Your task to perform on an android device: turn off picture-in-picture Image 0: 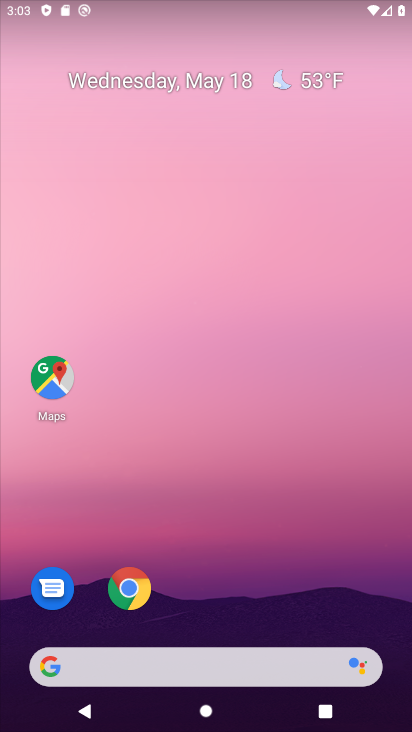
Step 0: press home button
Your task to perform on an android device: turn off picture-in-picture Image 1: 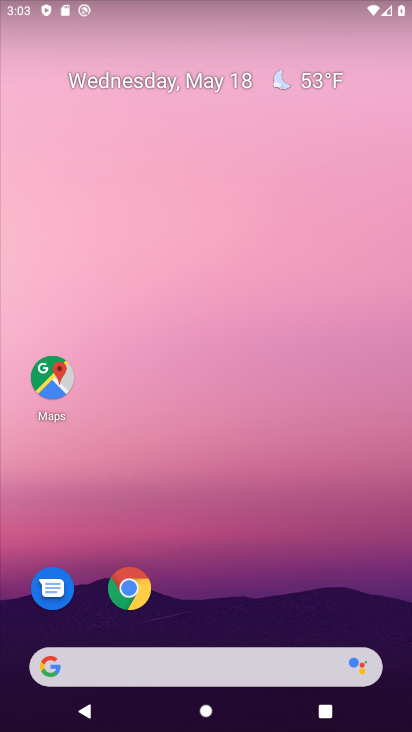
Step 1: click (141, 576)
Your task to perform on an android device: turn off picture-in-picture Image 2: 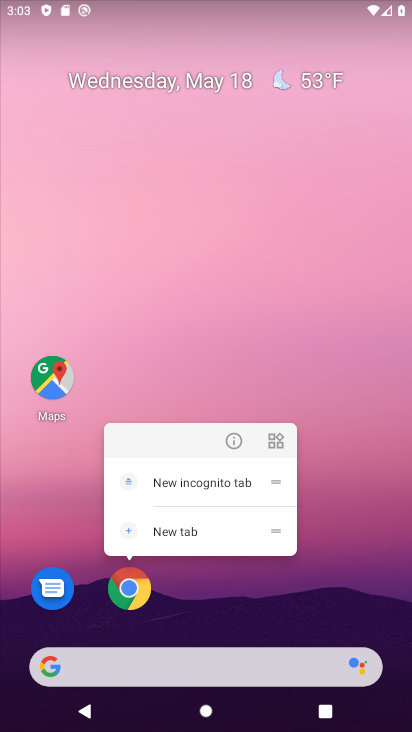
Step 2: click (230, 427)
Your task to perform on an android device: turn off picture-in-picture Image 3: 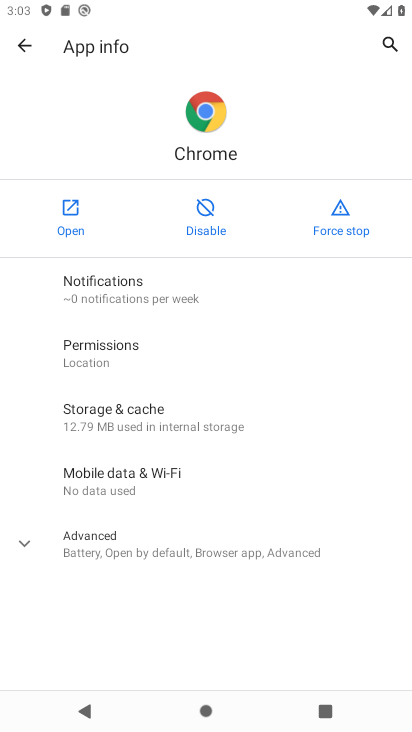
Step 3: click (112, 554)
Your task to perform on an android device: turn off picture-in-picture Image 4: 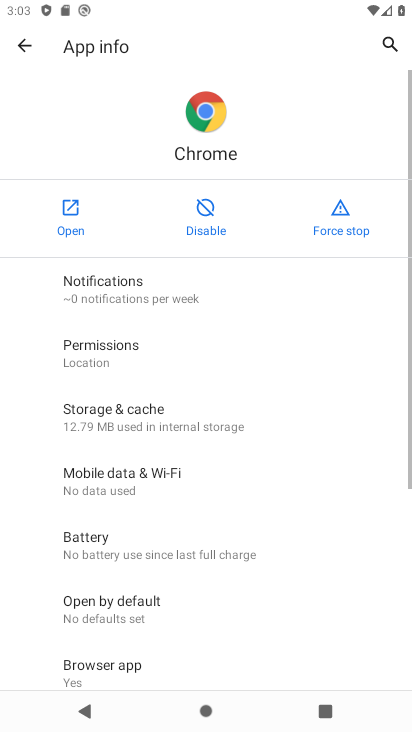
Step 4: drag from (147, 606) to (115, 110)
Your task to perform on an android device: turn off picture-in-picture Image 5: 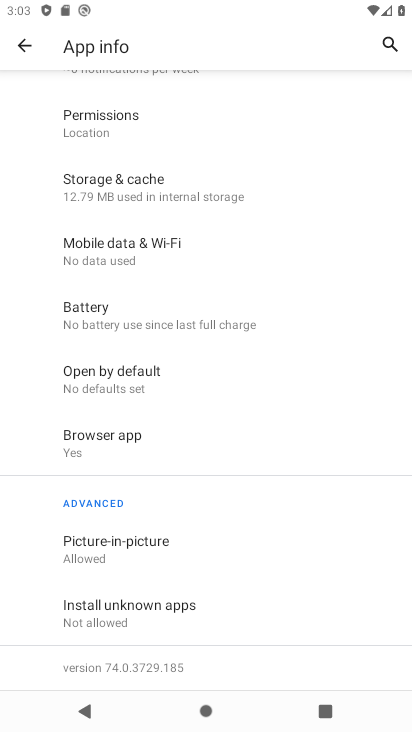
Step 5: click (121, 566)
Your task to perform on an android device: turn off picture-in-picture Image 6: 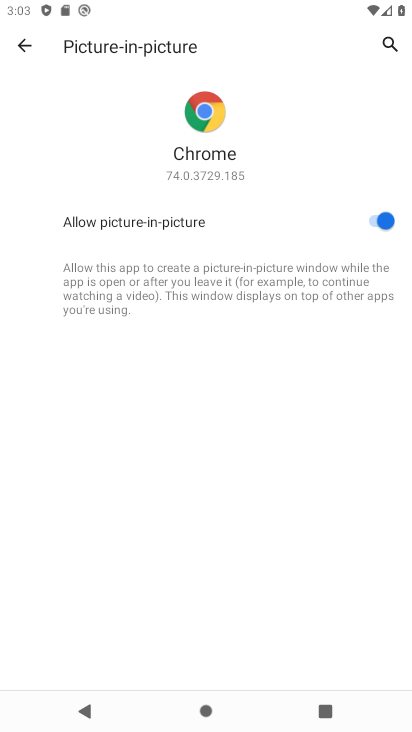
Step 6: click (393, 210)
Your task to perform on an android device: turn off picture-in-picture Image 7: 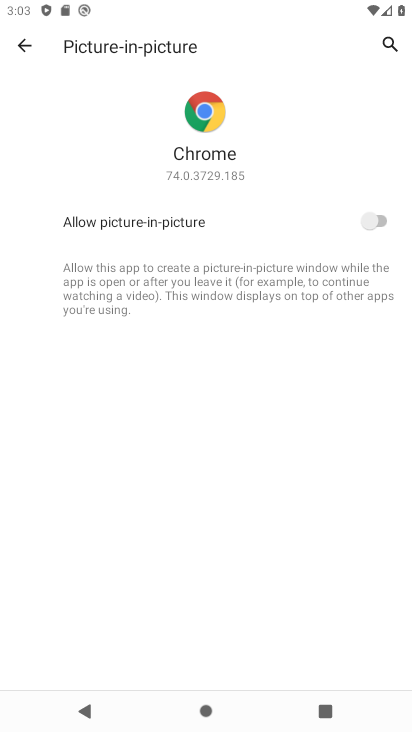
Step 7: task complete